Your task to perform on an android device: turn off javascript in the chrome app Image 0: 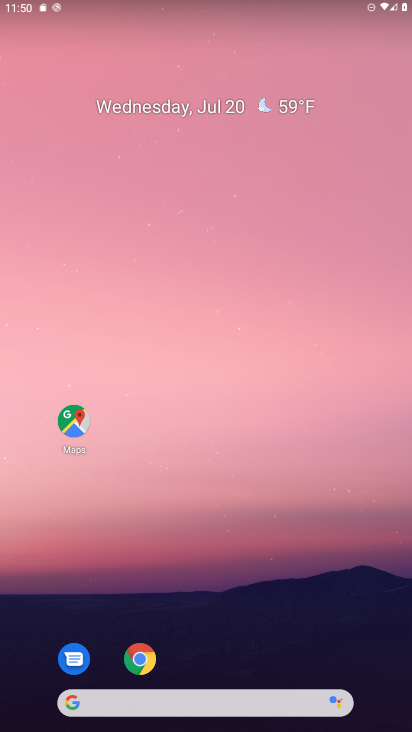
Step 0: press home button
Your task to perform on an android device: turn off javascript in the chrome app Image 1: 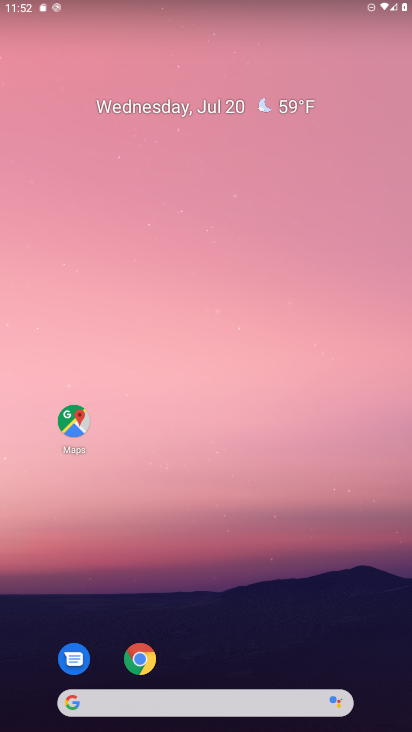
Step 1: click (141, 677)
Your task to perform on an android device: turn off javascript in the chrome app Image 2: 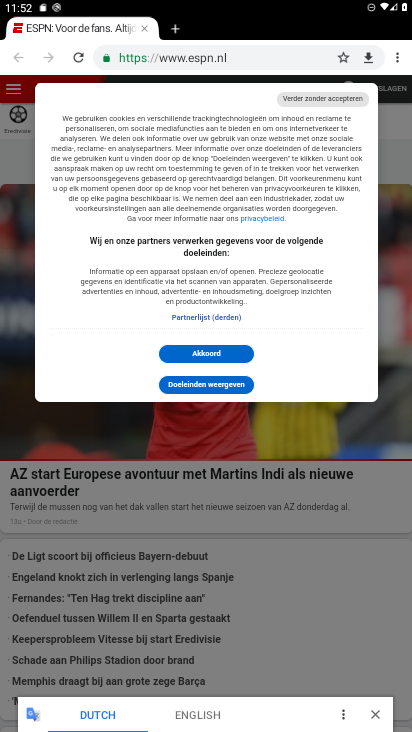
Step 2: click (401, 59)
Your task to perform on an android device: turn off javascript in the chrome app Image 3: 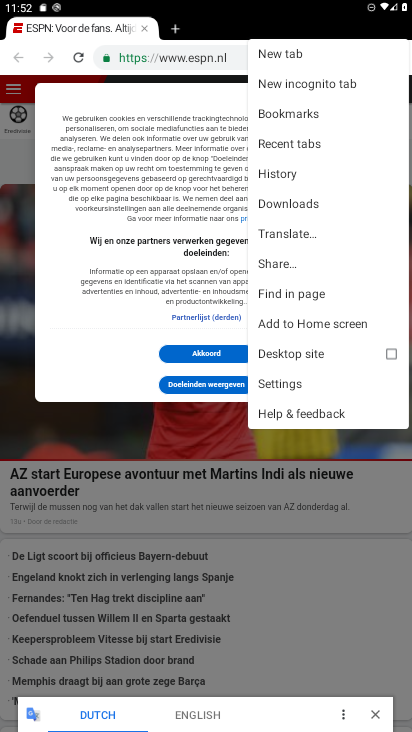
Step 3: click (284, 383)
Your task to perform on an android device: turn off javascript in the chrome app Image 4: 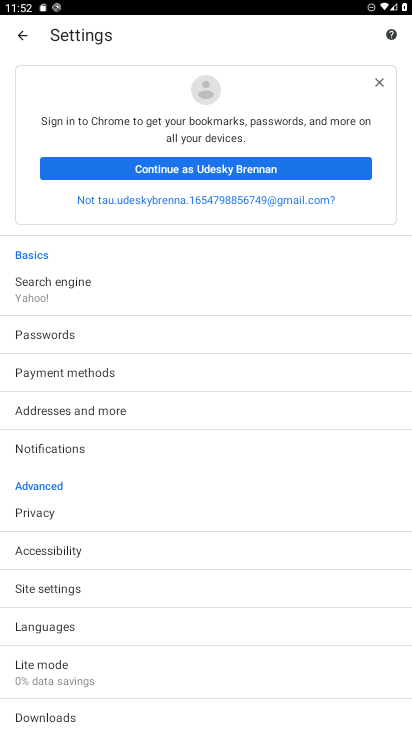
Step 4: click (85, 590)
Your task to perform on an android device: turn off javascript in the chrome app Image 5: 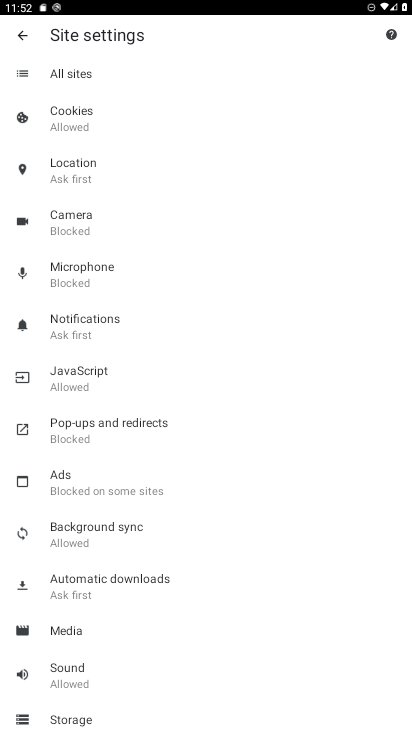
Step 5: click (132, 374)
Your task to perform on an android device: turn off javascript in the chrome app Image 6: 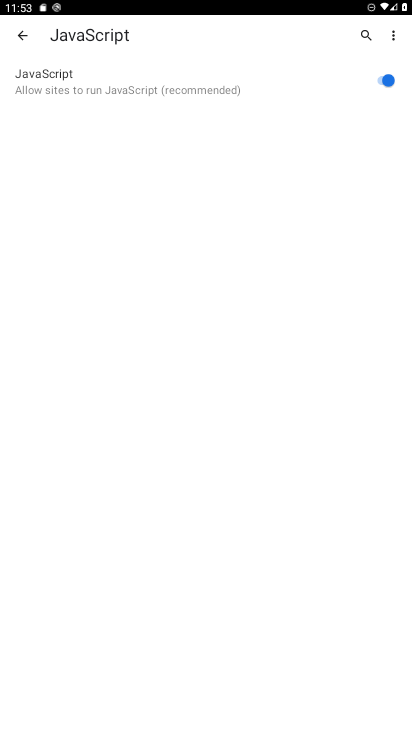
Step 6: click (388, 82)
Your task to perform on an android device: turn off javascript in the chrome app Image 7: 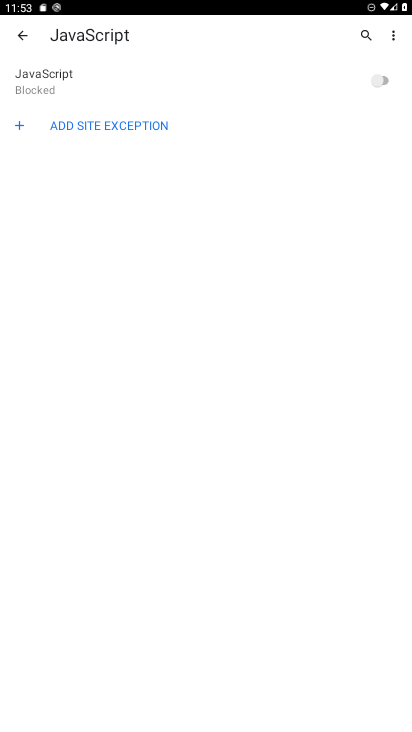
Step 7: task complete